Your task to perform on an android device: empty trash in google photos Image 0: 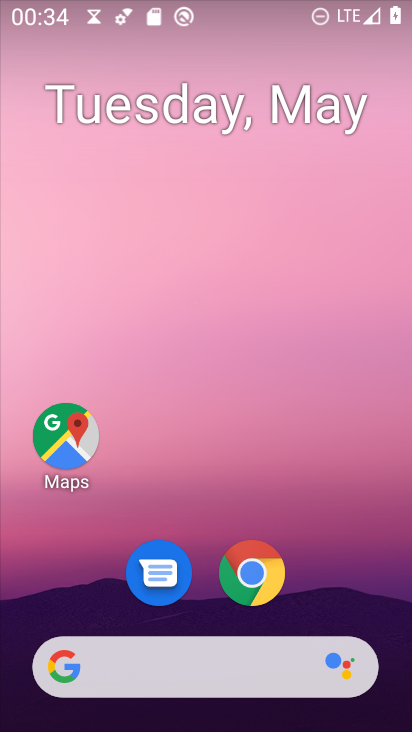
Step 0: drag from (357, 555) to (220, 27)
Your task to perform on an android device: empty trash in google photos Image 1: 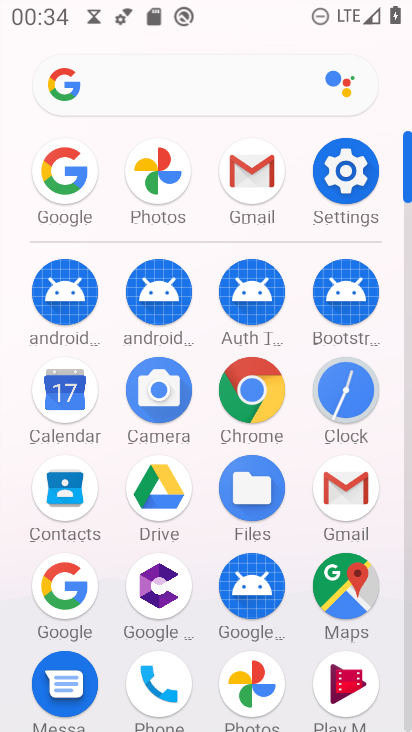
Step 1: click (144, 170)
Your task to perform on an android device: empty trash in google photos Image 2: 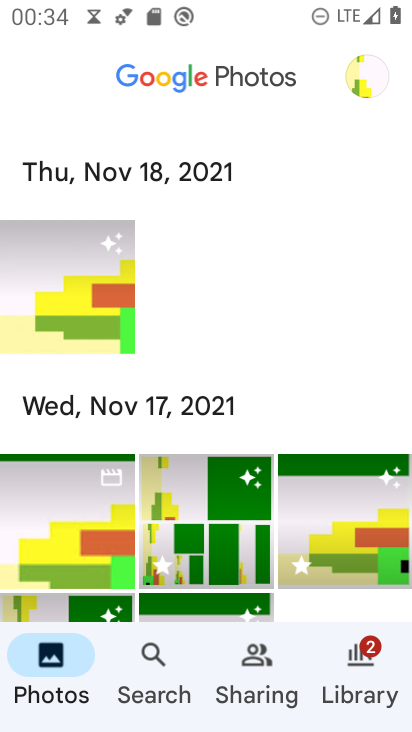
Step 2: click (361, 674)
Your task to perform on an android device: empty trash in google photos Image 3: 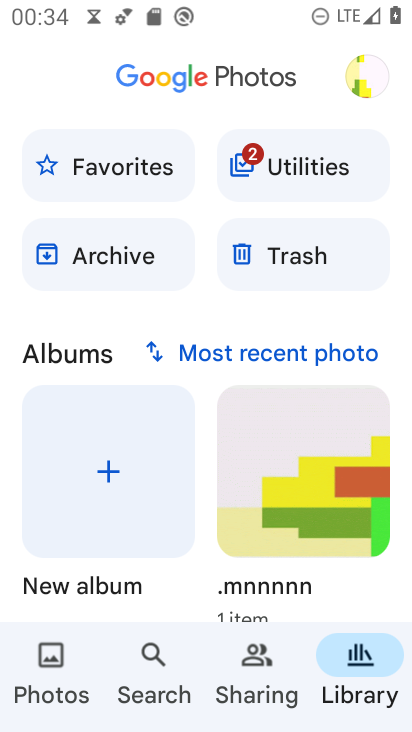
Step 3: click (295, 258)
Your task to perform on an android device: empty trash in google photos Image 4: 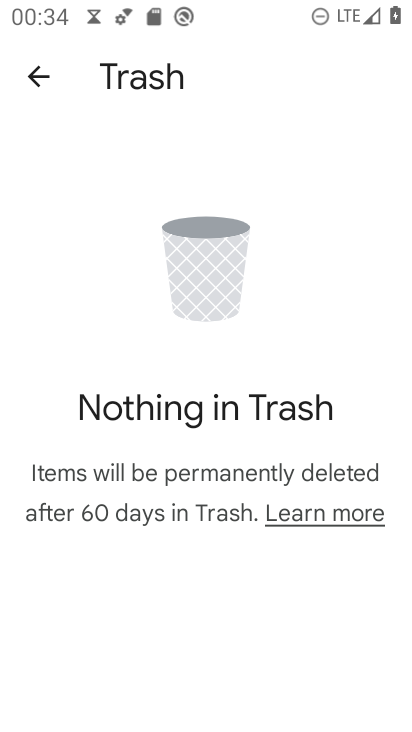
Step 4: task complete